Your task to perform on an android device: turn on priority inbox in the gmail app Image 0: 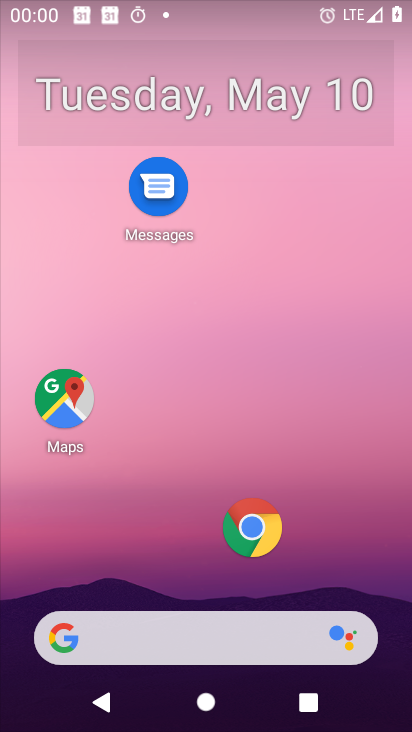
Step 0: drag from (167, 545) to (168, 37)
Your task to perform on an android device: turn on priority inbox in the gmail app Image 1: 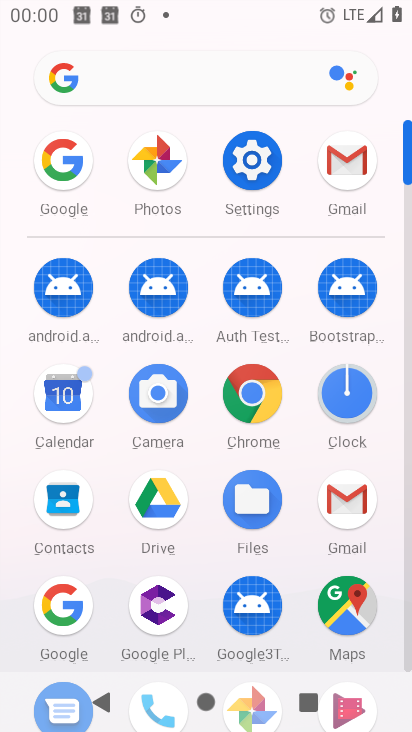
Step 1: click (343, 166)
Your task to perform on an android device: turn on priority inbox in the gmail app Image 2: 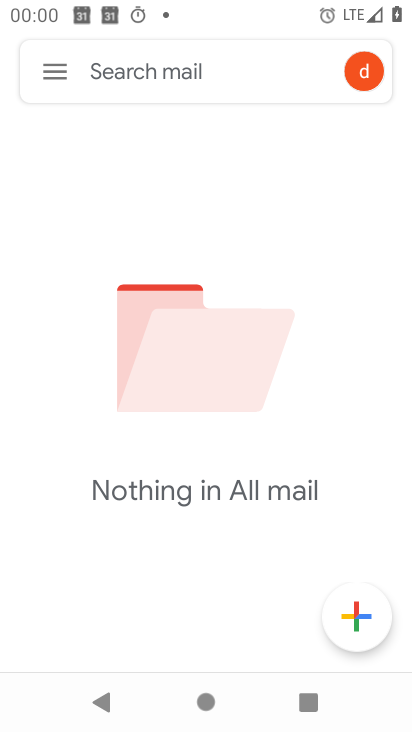
Step 2: click (36, 70)
Your task to perform on an android device: turn on priority inbox in the gmail app Image 3: 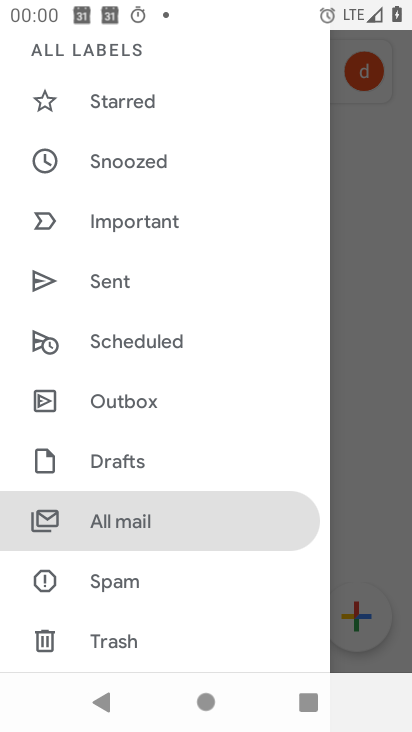
Step 3: drag from (175, 542) to (171, 105)
Your task to perform on an android device: turn on priority inbox in the gmail app Image 4: 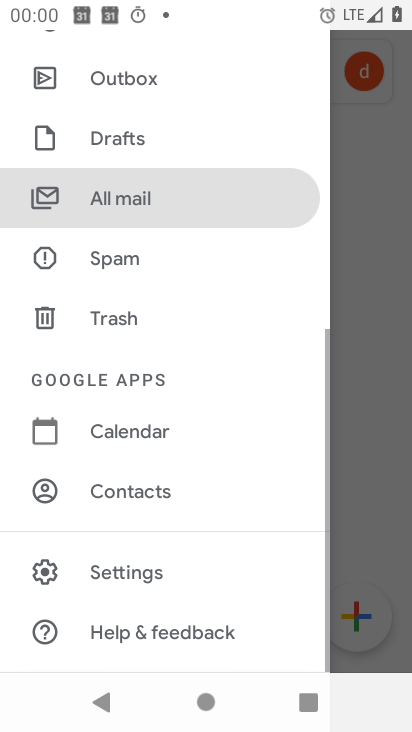
Step 4: click (140, 577)
Your task to perform on an android device: turn on priority inbox in the gmail app Image 5: 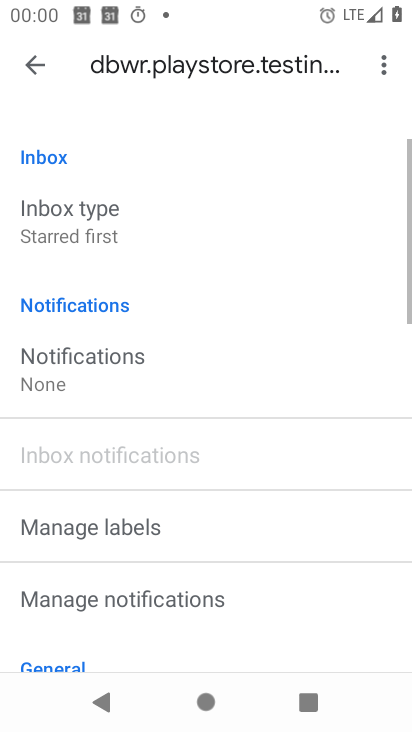
Step 5: drag from (191, 584) to (190, 167)
Your task to perform on an android device: turn on priority inbox in the gmail app Image 6: 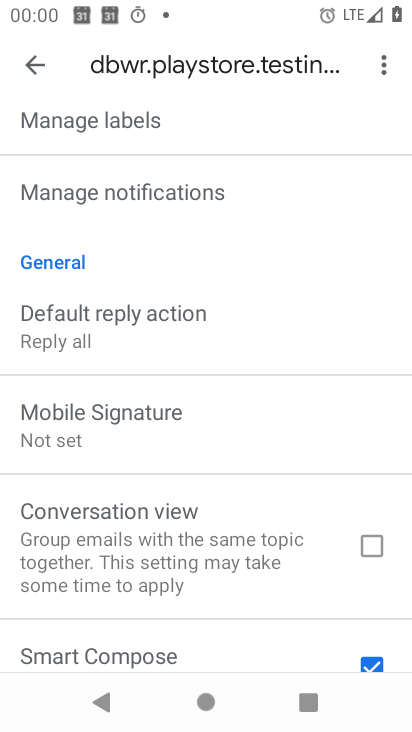
Step 6: drag from (151, 590) to (168, 693)
Your task to perform on an android device: turn on priority inbox in the gmail app Image 7: 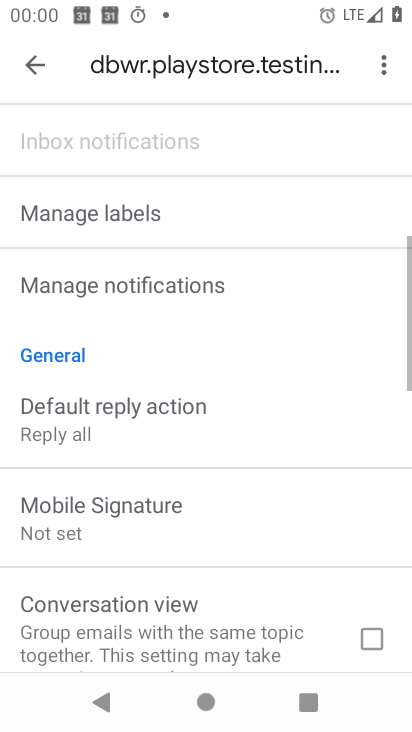
Step 7: drag from (134, 194) to (169, 519)
Your task to perform on an android device: turn on priority inbox in the gmail app Image 8: 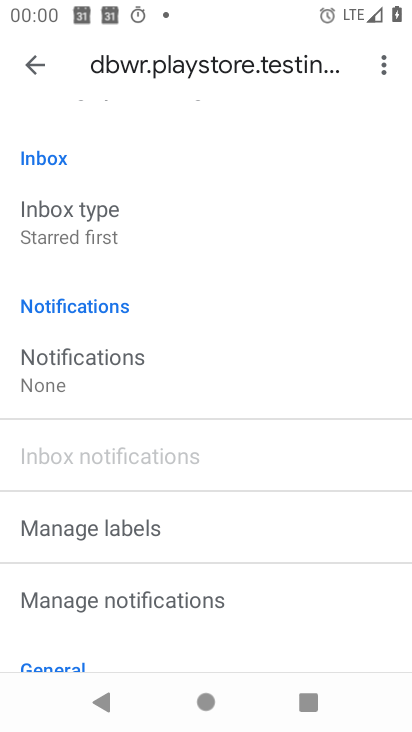
Step 8: drag from (91, 231) to (120, 409)
Your task to perform on an android device: turn on priority inbox in the gmail app Image 9: 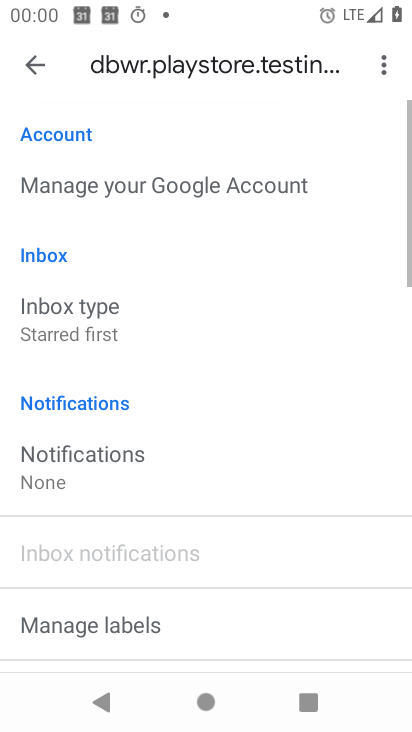
Step 9: click (80, 312)
Your task to perform on an android device: turn on priority inbox in the gmail app Image 10: 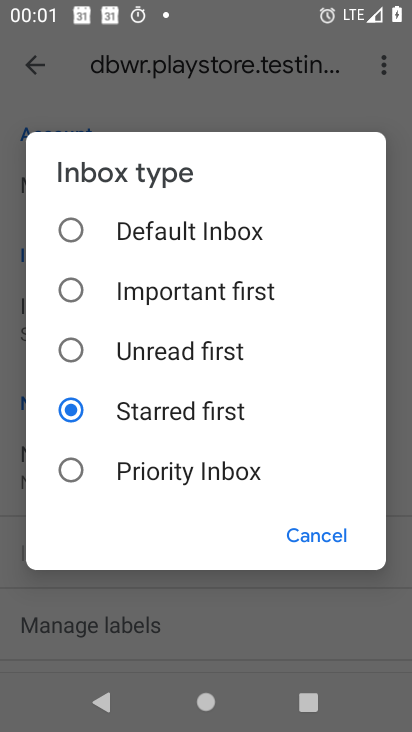
Step 10: click (73, 472)
Your task to perform on an android device: turn on priority inbox in the gmail app Image 11: 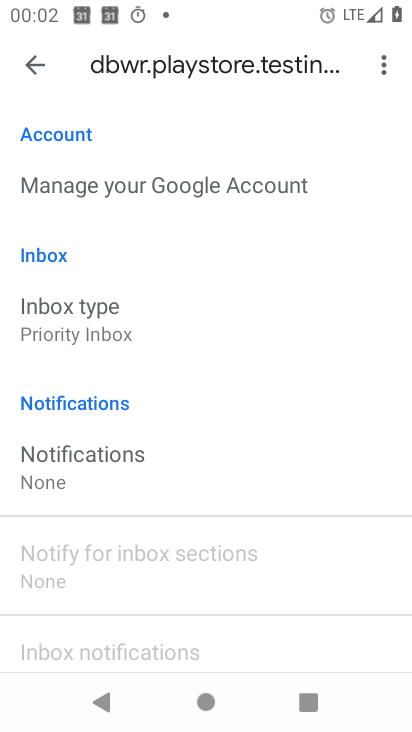
Step 11: task complete